Your task to perform on an android device: Open internet settings Image 0: 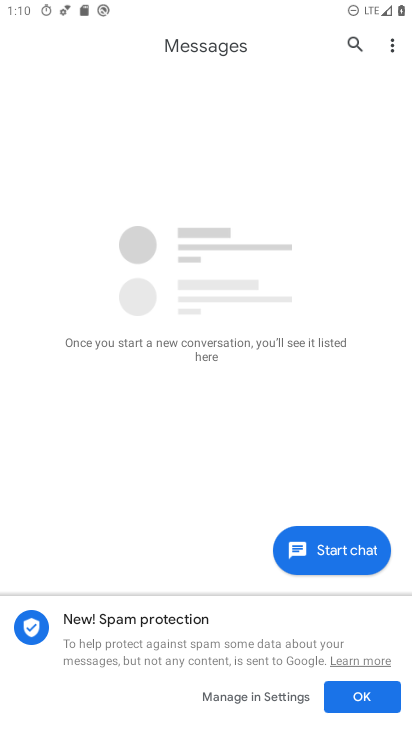
Step 0: press home button
Your task to perform on an android device: Open internet settings Image 1: 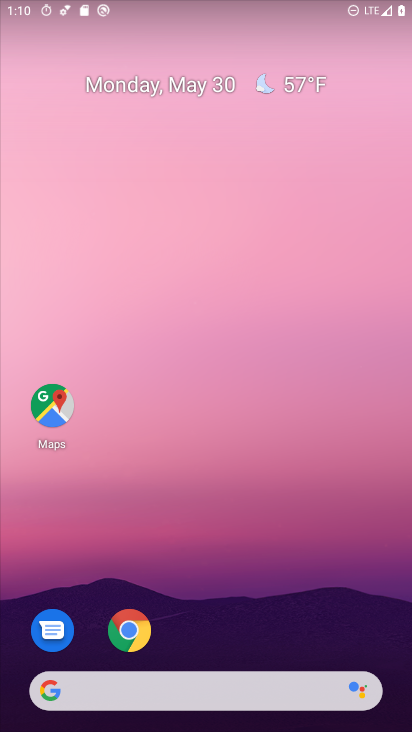
Step 1: drag from (255, 714) to (271, 204)
Your task to perform on an android device: Open internet settings Image 2: 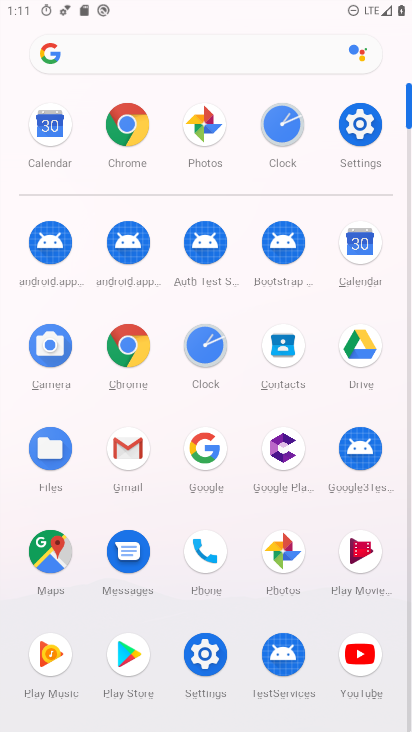
Step 2: click (353, 134)
Your task to perform on an android device: Open internet settings Image 3: 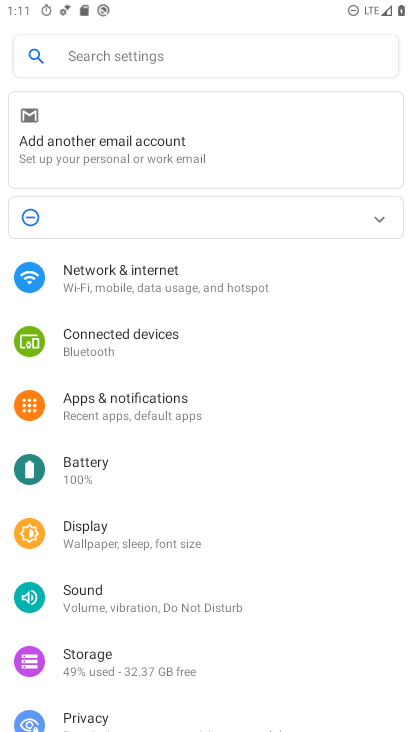
Step 3: click (243, 280)
Your task to perform on an android device: Open internet settings Image 4: 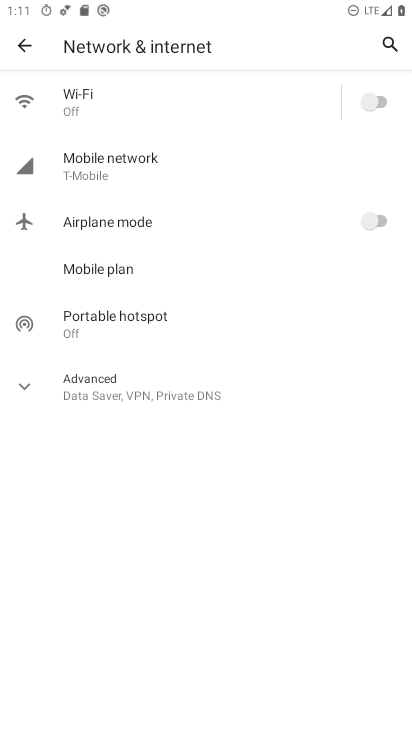
Step 4: task complete